Your task to perform on an android device: Open display settings Image 0: 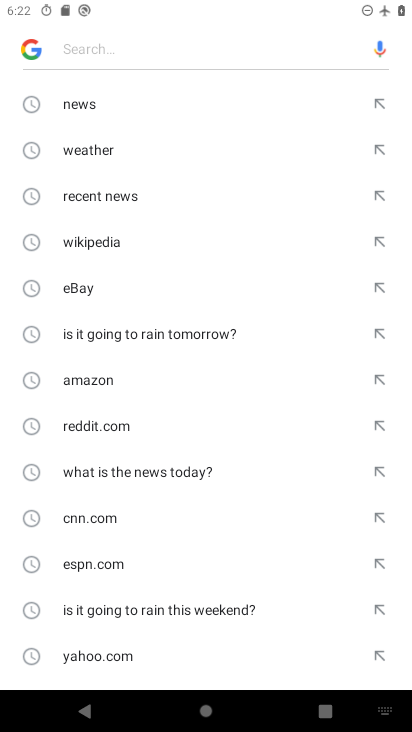
Step 0: press home button
Your task to perform on an android device: Open display settings Image 1: 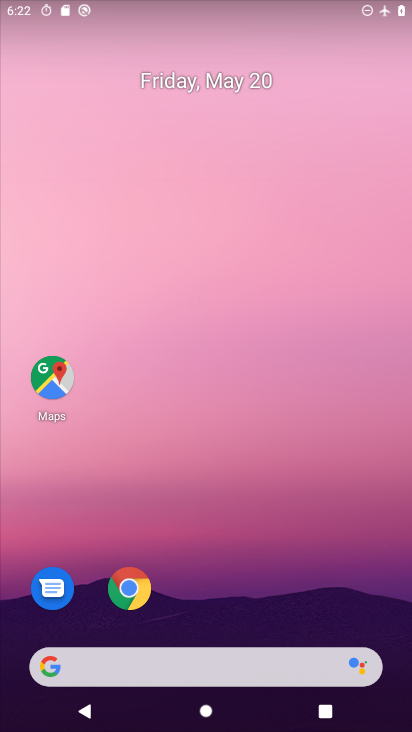
Step 1: drag from (249, 586) to (259, 166)
Your task to perform on an android device: Open display settings Image 2: 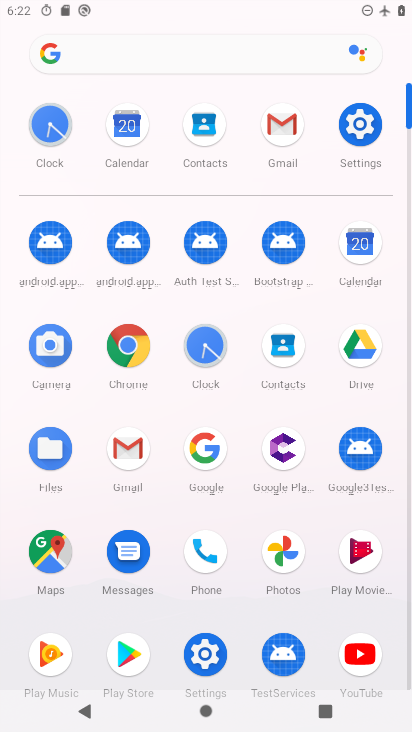
Step 2: click (346, 145)
Your task to perform on an android device: Open display settings Image 3: 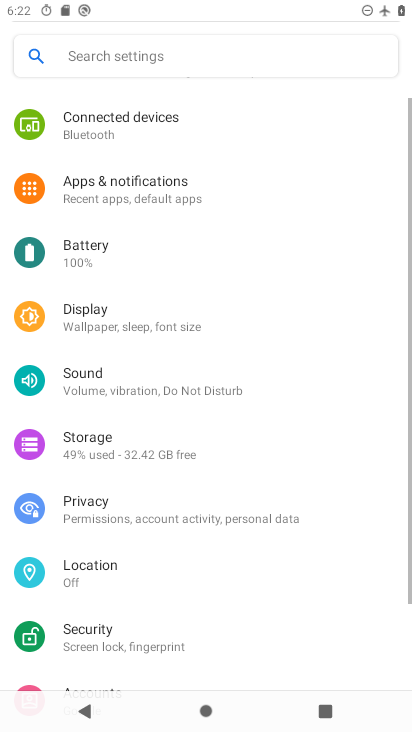
Step 3: click (106, 334)
Your task to perform on an android device: Open display settings Image 4: 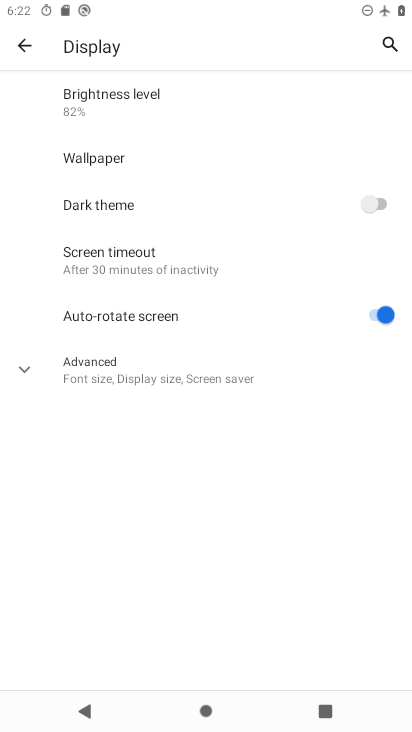
Step 4: task complete